Your task to perform on an android device: Open privacy settings Image 0: 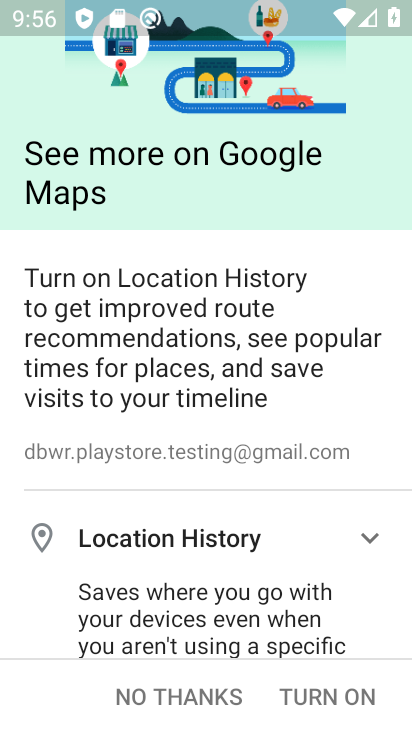
Step 0: press home button
Your task to perform on an android device: Open privacy settings Image 1: 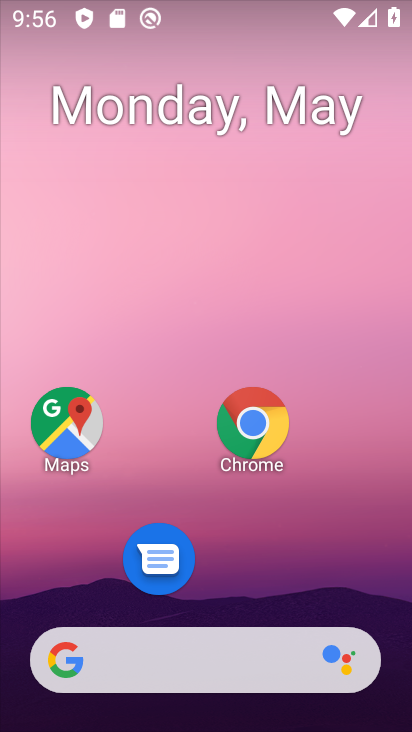
Step 1: click (258, 429)
Your task to perform on an android device: Open privacy settings Image 2: 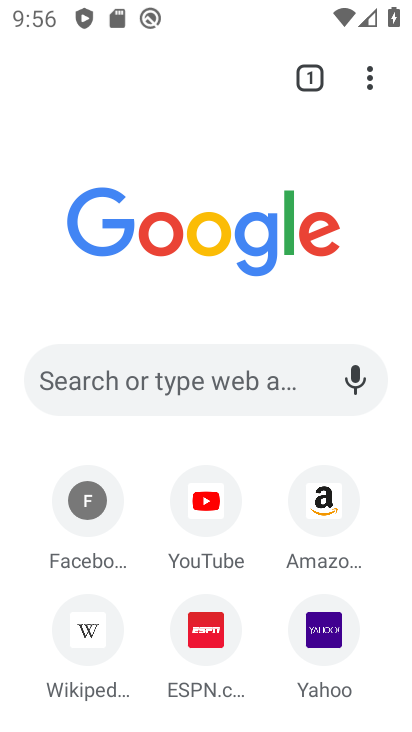
Step 2: press home button
Your task to perform on an android device: Open privacy settings Image 3: 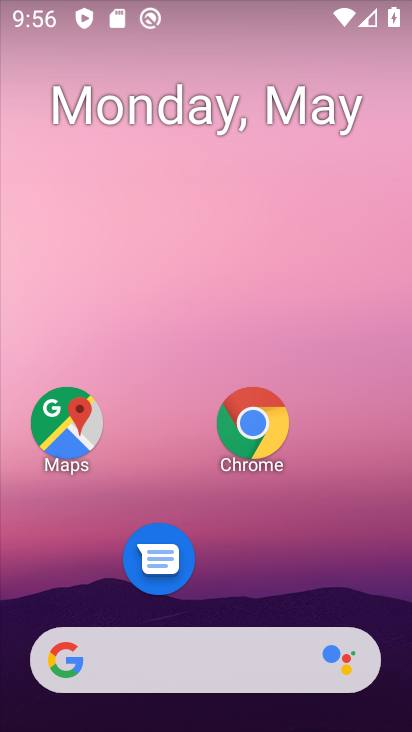
Step 3: drag from (236, 626) to (234, 165)
Your task to perform on an android device: Open privacy settings Image 4: 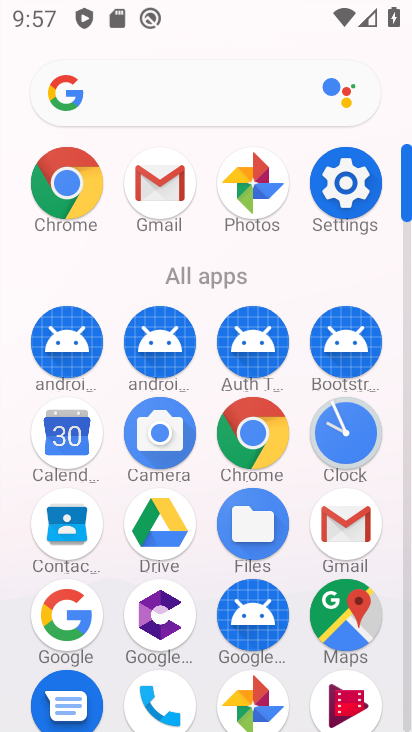
Step 4: click (234, 165)
Your task to perform on an android device: Open privacy settings Image 5: 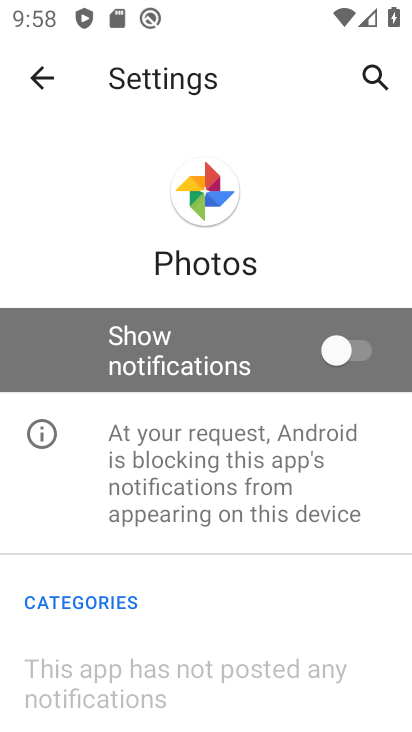
Step 5: press home button
Your task to perform on an android device: Open privacy settings Image 6: 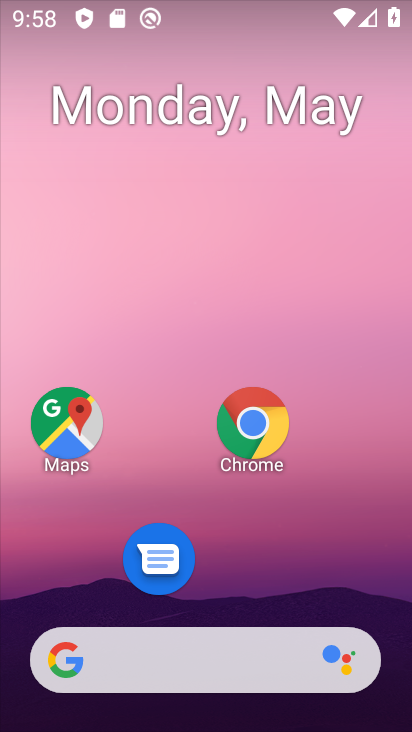
Step 6: drag from (228, 585) to (291, 24)
Your task to perform on an android device: Open privacy settings Image 7: 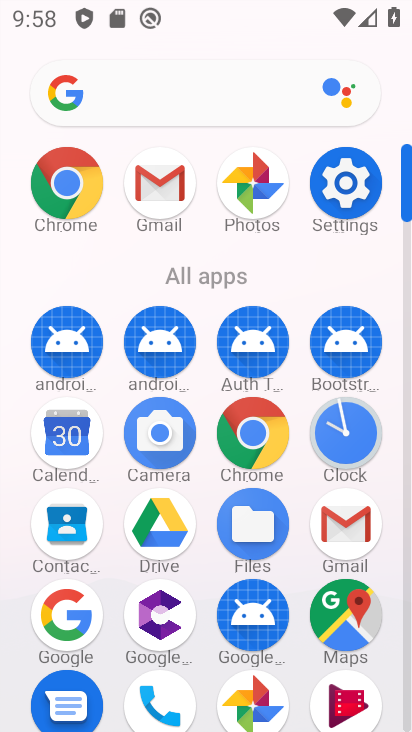
Step 7: click (330, 205)
Your task to perform on an android device: Open privacy settings Image 8: 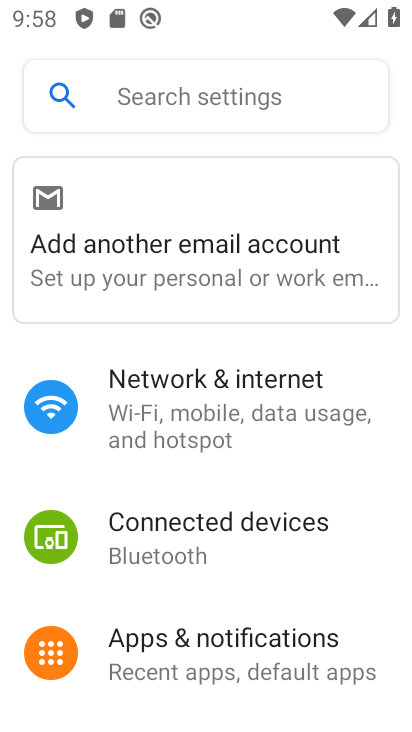
Step 8: drag from (158, 682) to (284, 102)
Your task to perform on an android device: Open privacy settings Image 9: 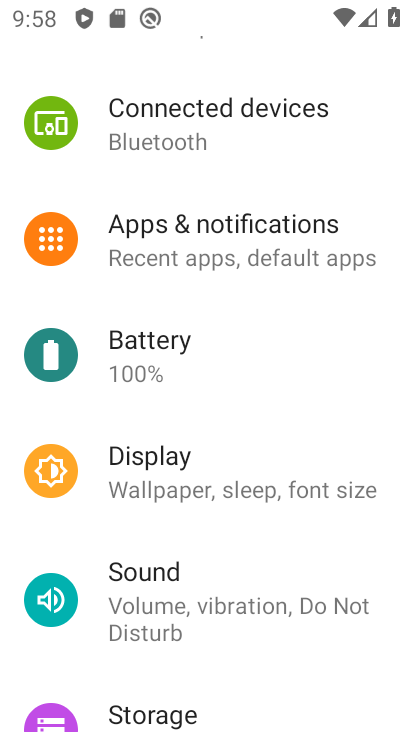
Step 9: drag from (195, 625) to (285, 183)
Your task to perform on an android device: Open privacy settings Image 10: 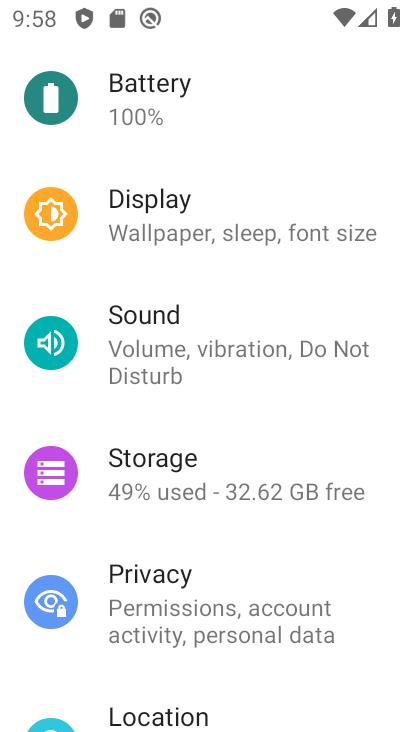
Step 10: click (108, 611)
Your task to perform on an android device: Open privacy settings Image 11: 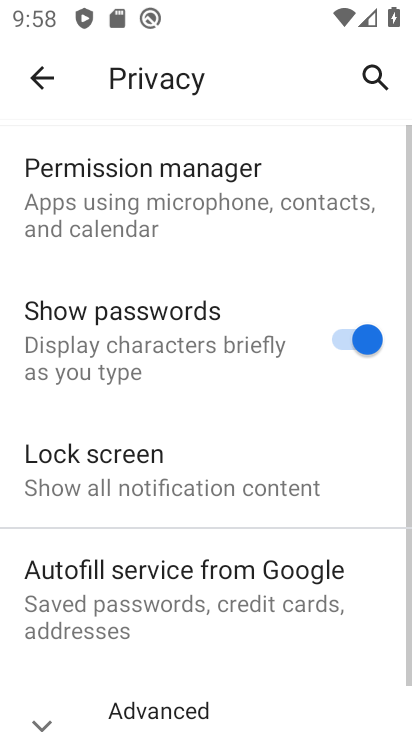
Step 11: task complete